Your task to perform on an android device: open app "PUBG MOBILE" (install if not already installed) Image 0: 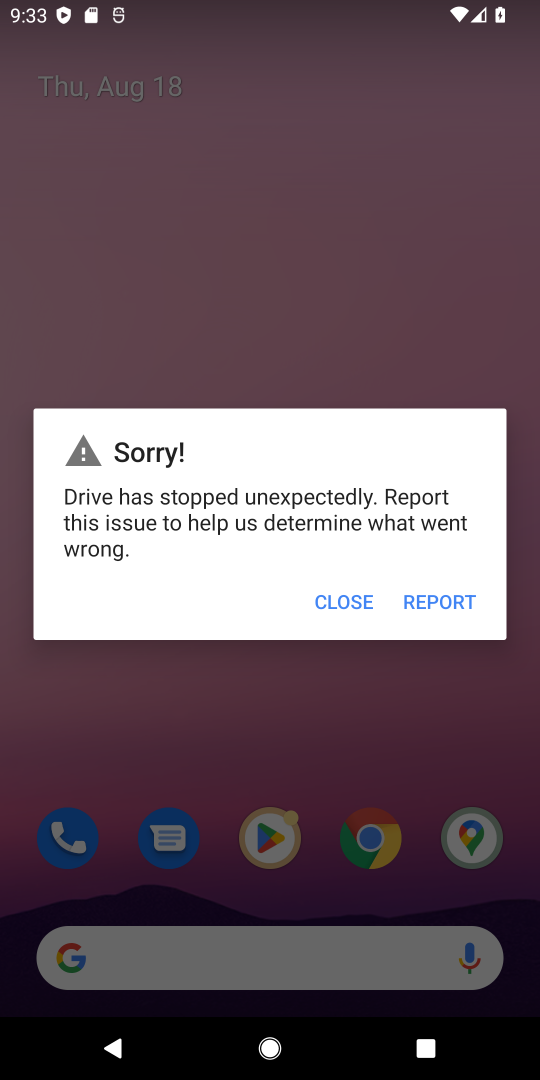
Step 0: press home button
Your task to perform on an android device: open app "PUBG MOBILE" (install if not already installed) Image 1: 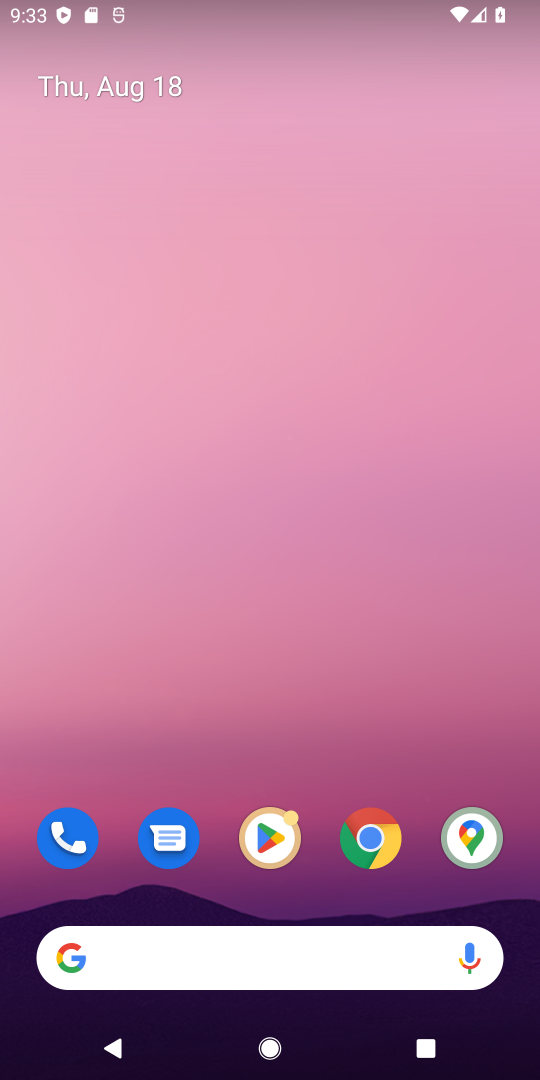
Step 1: drag from (254, 916) to (502, 178)
Your task to perform on an android device: open app "PUBG MOBILE" (install if not already installed) Image 2: 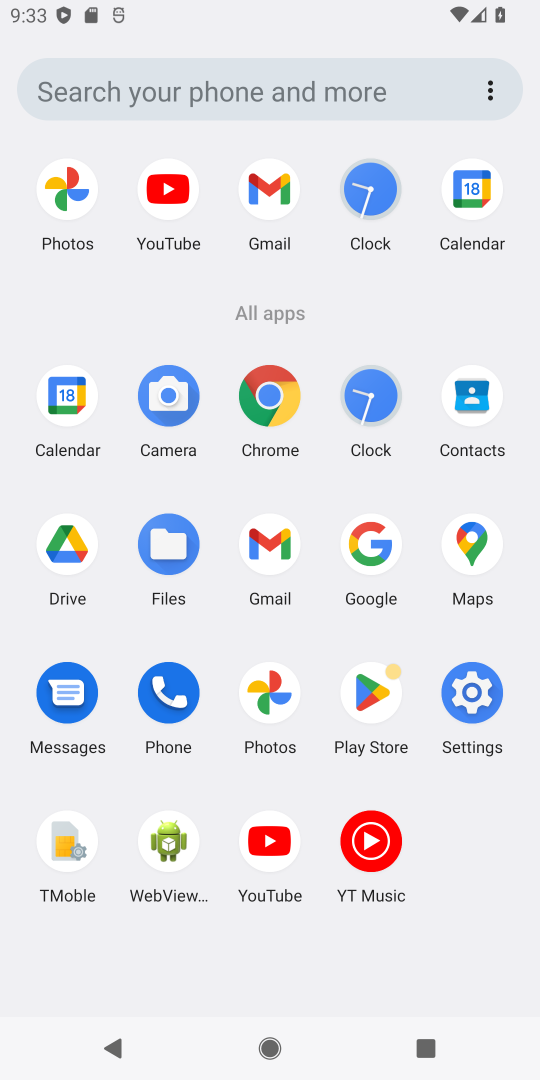
Step 2: click (366, 304)
Your task to perform on an android device: open app "PUBG MOBILE" (install if not already installed) Image 3: 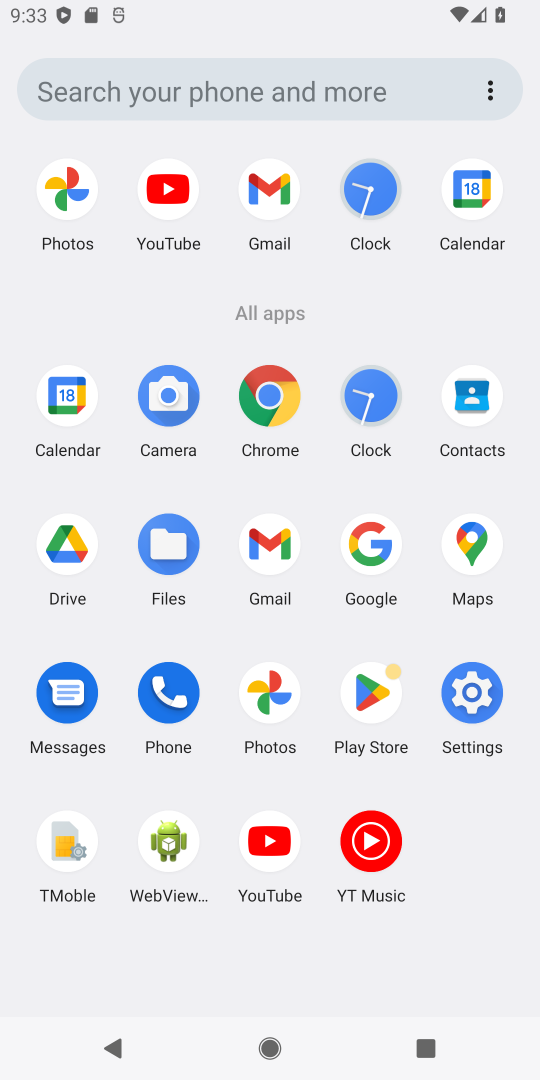
Step 3: click (366, 304)
Your task to perform on an android device: open app "PUBG MOBILE" (install if not already installed) Image 4: 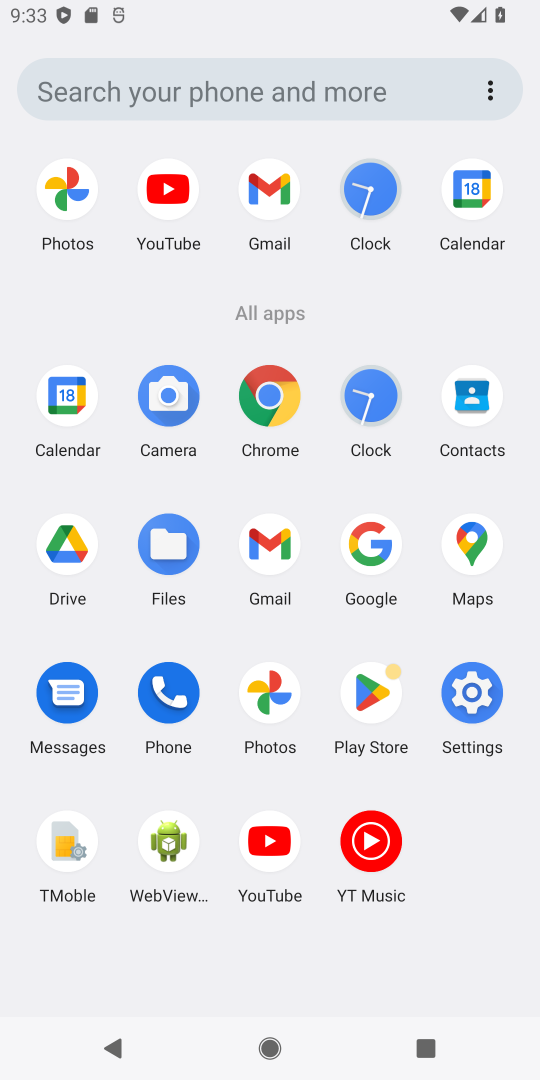
Step 4: click (366, 304)
Your task to perform on an android device: open app "PUBG MOBILE" (install if not already installed) Image 5: 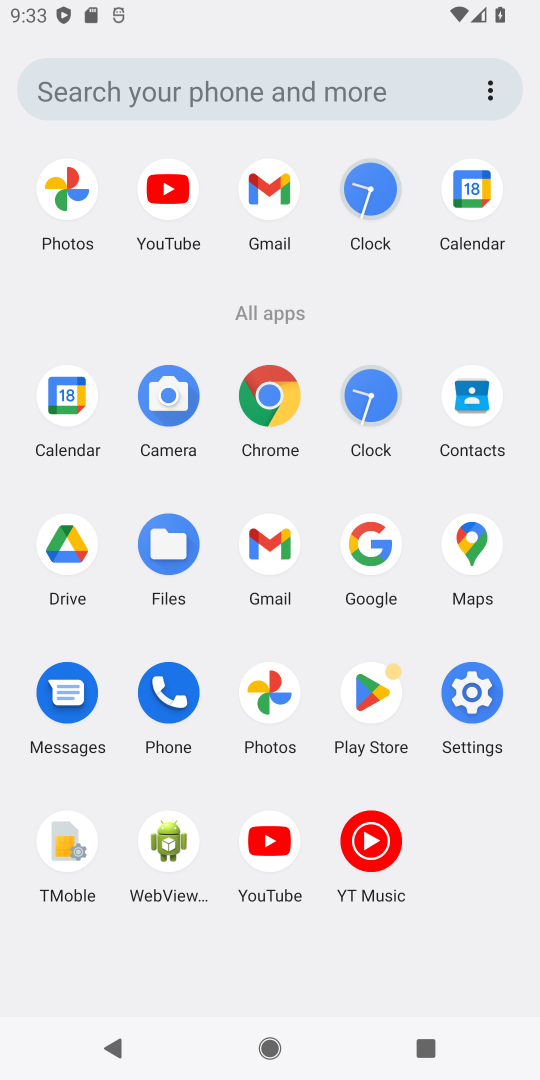
Step 5: click (367, 720)
Your task to perform on an android device: open app "PUBG MOBILE" (install if not already installed) Image 6: 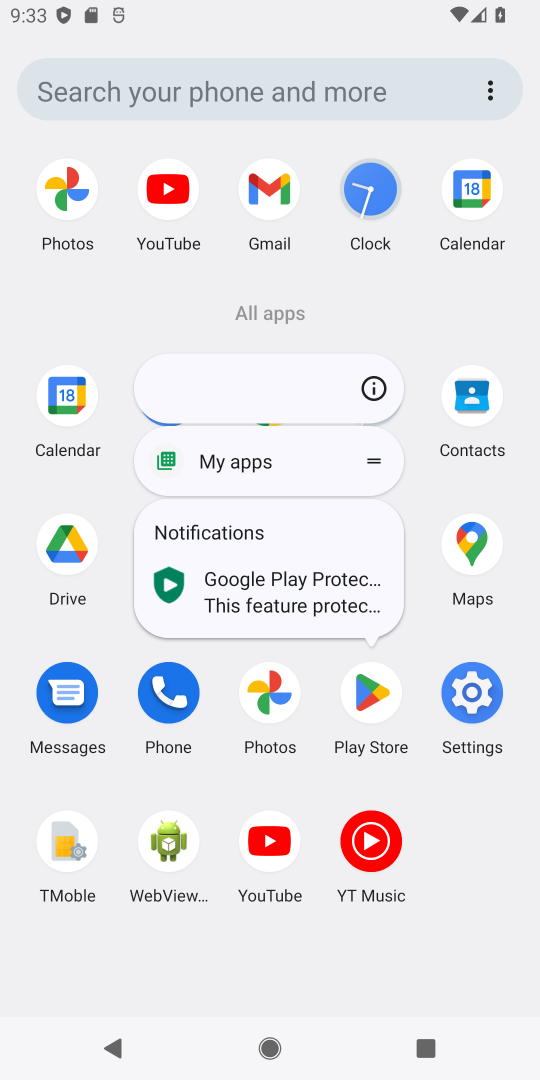
Step 6: task complete